Your task to perform on an android device: Open calendar and show me the second week of next month Image 0: 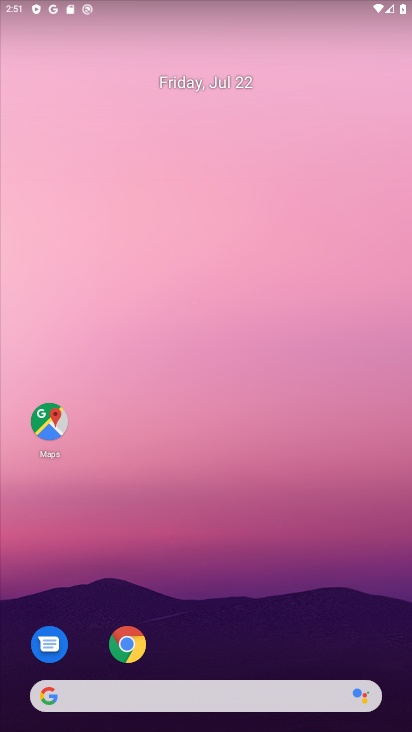
Step 0: drag from (253, 575) to (250, 189)
Your task to perform on an android device: Open calendar and show me the second week of next month Image 1: 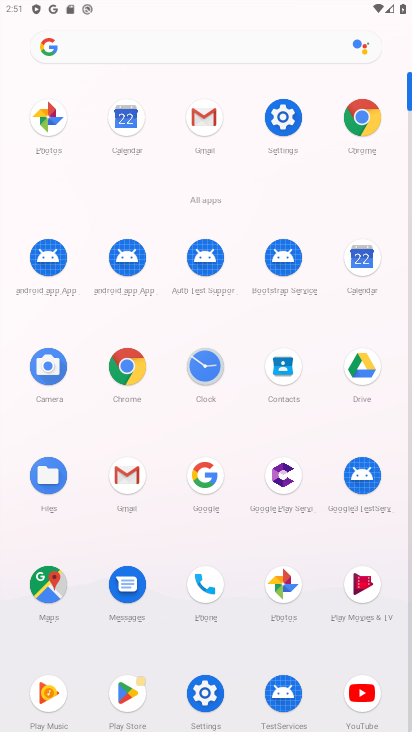
Step 1: click (362, 253)
Your task to perform on an android device: Open calendar and show me the second week of next month Image 2: 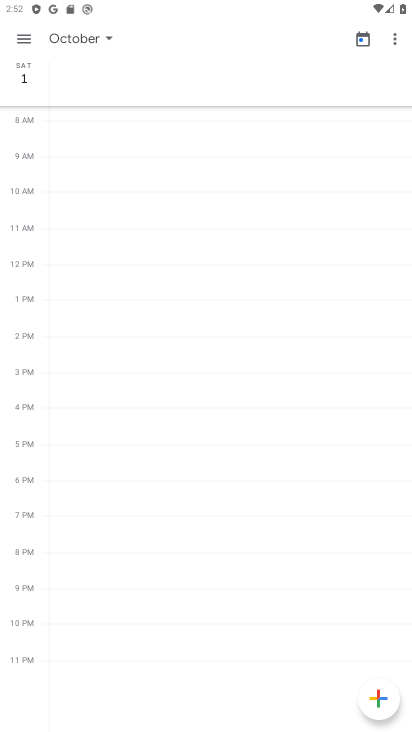
Step 2: click (25, 42)
Your task to perform on an android device: Open calendar and show me the second week of next month Image 3: 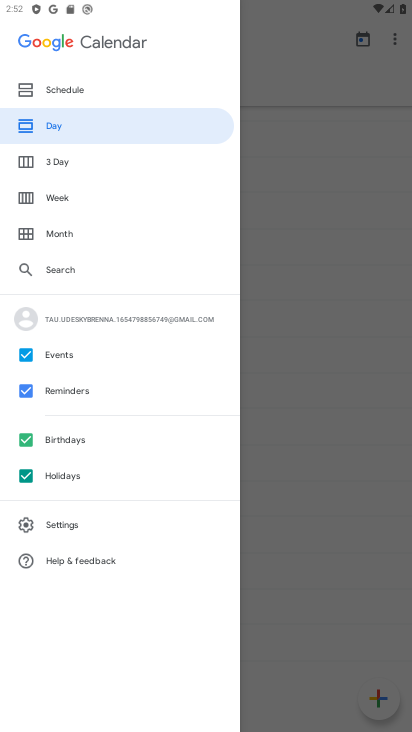
Step 3: click (64, 90)
Your task to perform on an android device: Open calendar and show me the second week of next month Image 4: 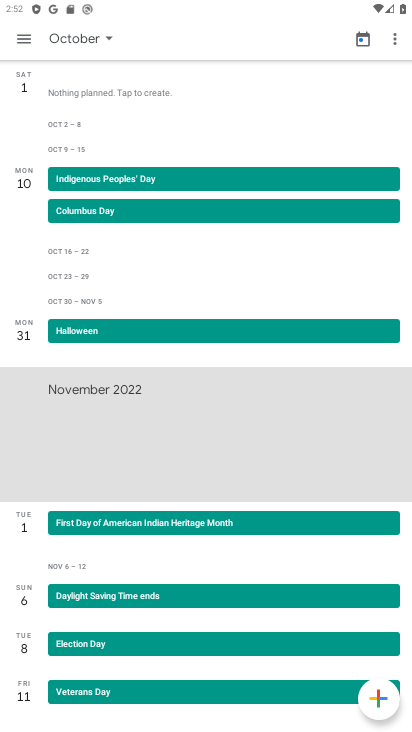
Step 4: task complete